Your task to perform on an android device: turn on improve location accuracy Image 0: 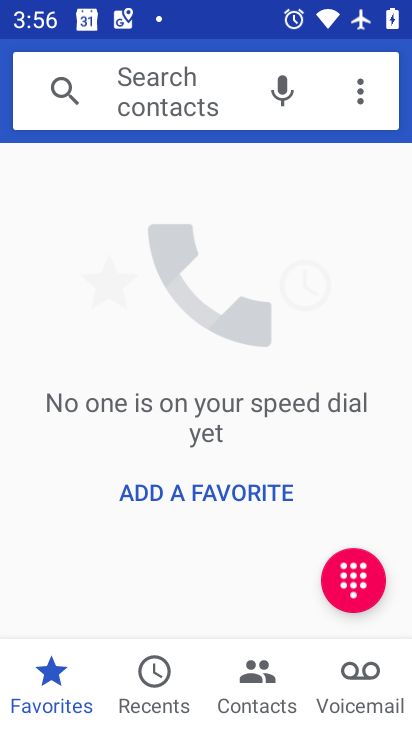
Step 0: press home button
Your task to perform on an android device: turn on improve location accuracy Image 1: 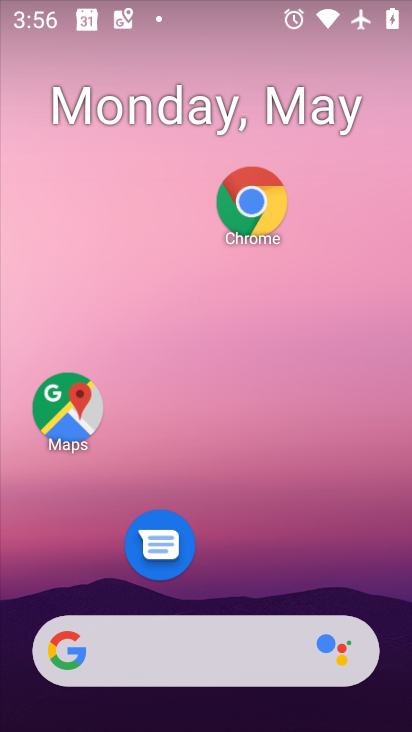
Step 1: click (239, 106)
Your task to perform on an android device: turn on improve location accuracy Image 2: 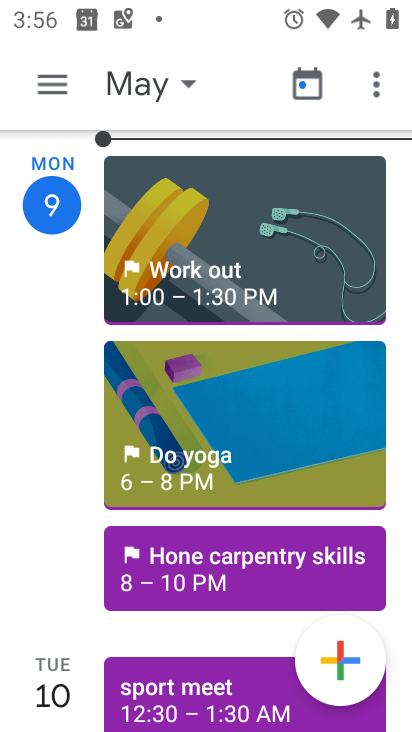
Step 2: press home button
Your task to perform on an android device: turn on improve location accuracy Image 3: 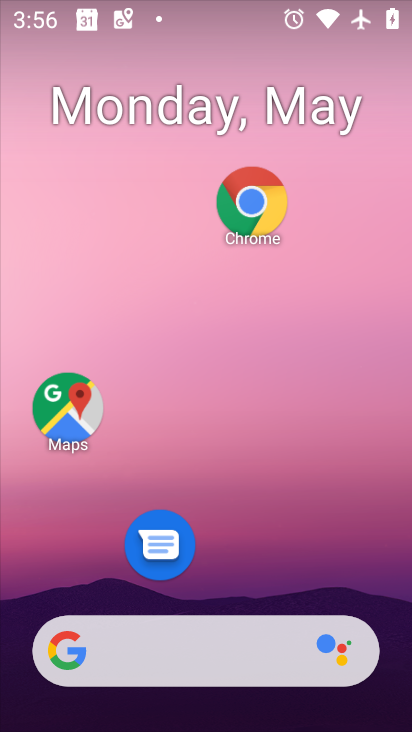
Step 3: drag from (231, 541) to (219, 189)
Your task to perform on an android device: turn on improve location accuracy Image 4: 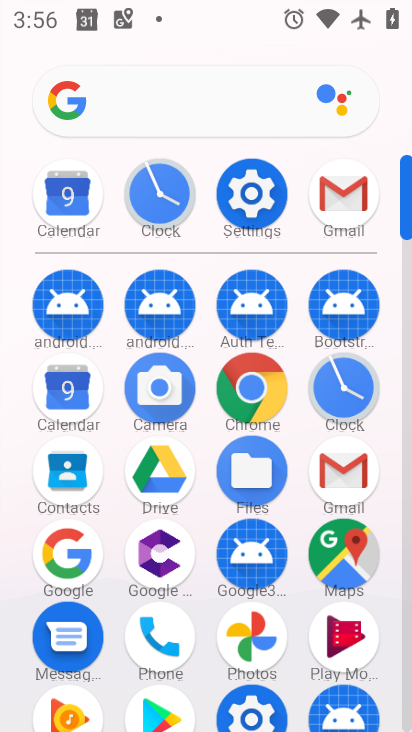
Step 4: click (282, 184)
Your task to perform on an android device: turn on improve location accuracy Image 5: 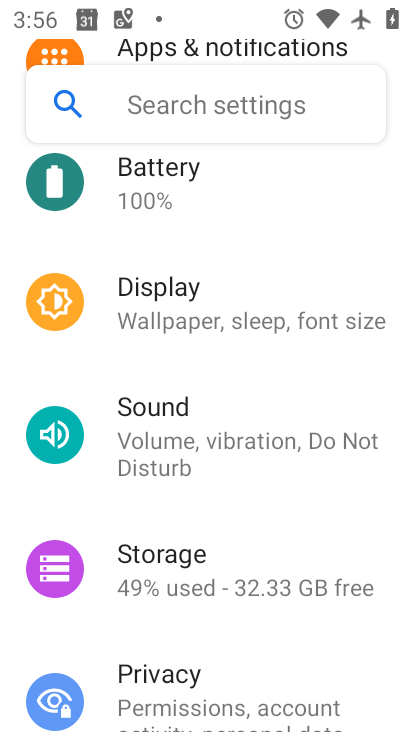
Step 5: drag from (248, 632) to (245, 274)
Your task to perform on an android device: turn on improve location accuracy Image 6: 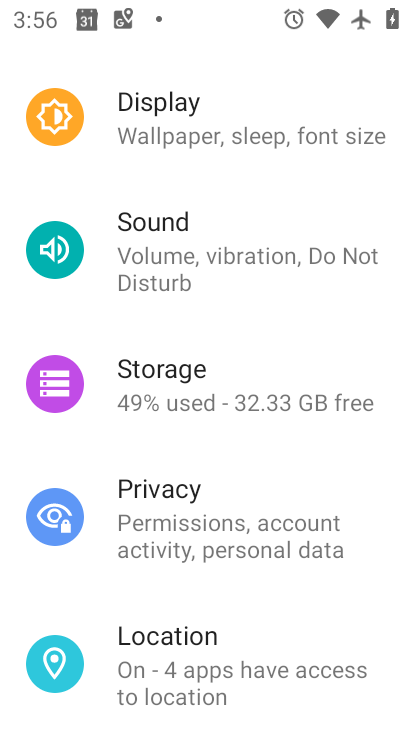
Step 6: drag from (239, 580) to (249, 351)
Your task to perform on an android device: turn on improve location accuracy Image 7: 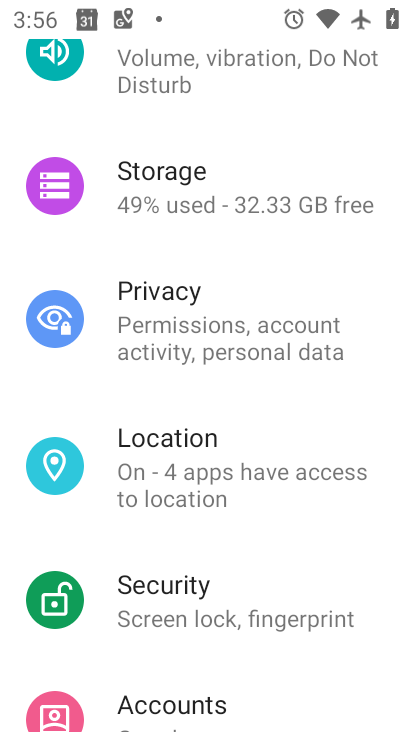
Step 7: click (197, 470)
Your task to perform on an android device: turn on improve location accuracy Image 8: 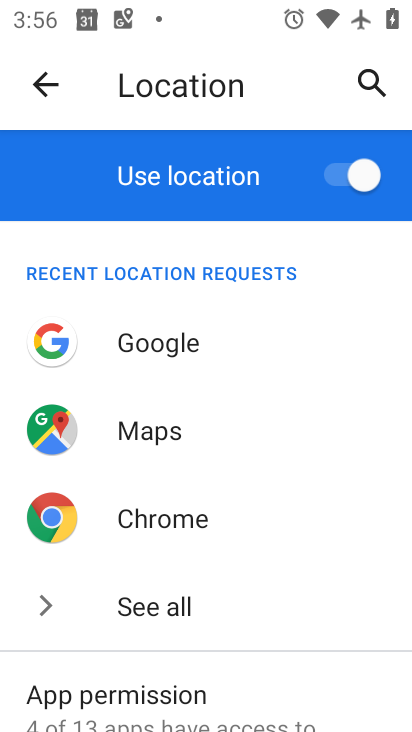
Step 8: drag from (248, 635) to (228, 350)
Your task to perform on an android device: turn on improve location accuracy Image 9: 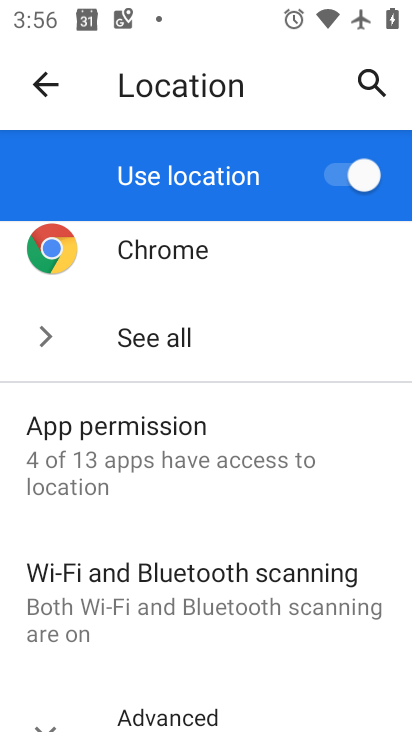
Step 9: drag from (215, 610) to (204, 457)
Your task to perform on an android device: turn on improve location accuracy Image 10: 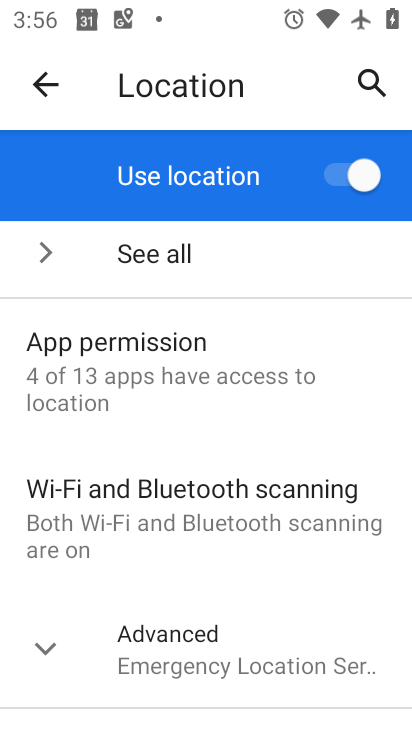
Step 10: click (207, 633)
Your task to perform on an android device: turn on improve location accuracy Image 11: 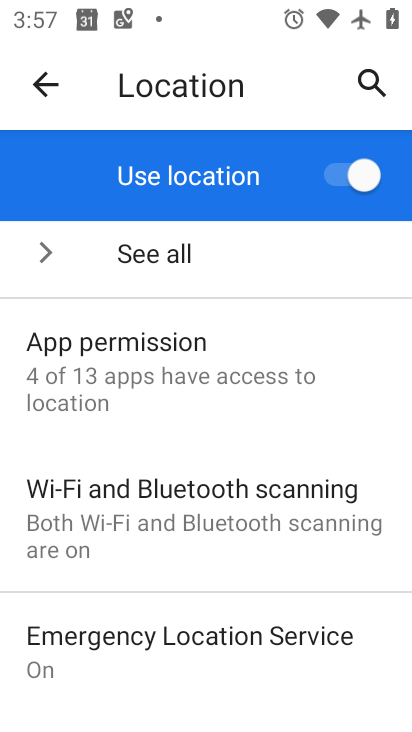
Step 11: drag from (245, 534) to (222, 387)
Your task to perform on an android device: turn on improve location accuracy Image 12: 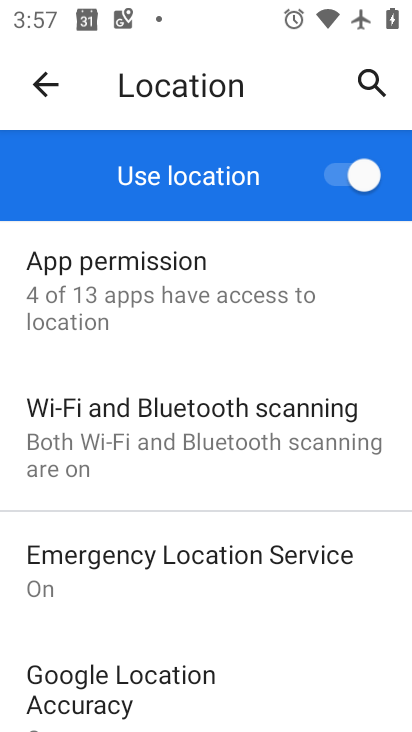
Step 12: drag from (185, 649) to (188, 476)
Your task to perform on an android device: turn on improve location accuracy Image 13: 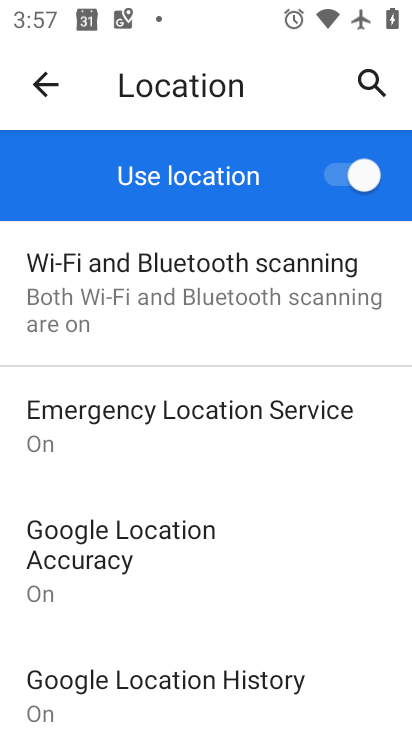
Step 13: click (181, 578)
Your task to perform on an android device: turn on improve location accuracy Image 14: 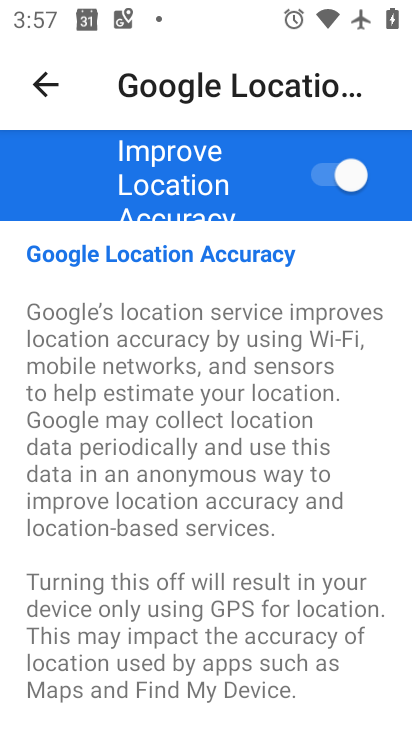
Step 14: task complete